Your task to perform on an android device: turn smart compose on in the gmail app Image 0: 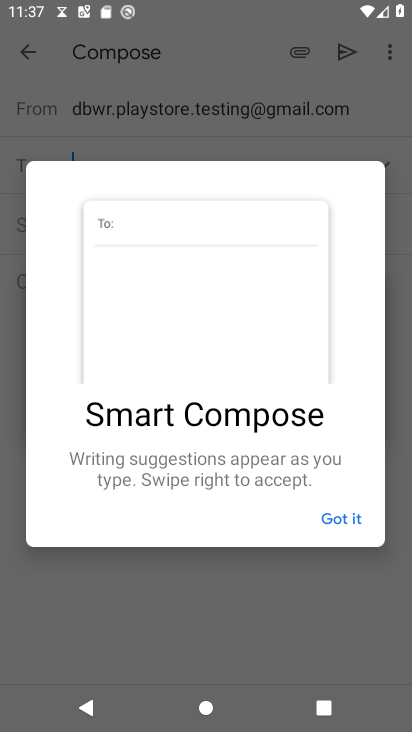
Step 0: press home button
Your task to perform on an android device: turn smart compose on in the gmail app Image 1: 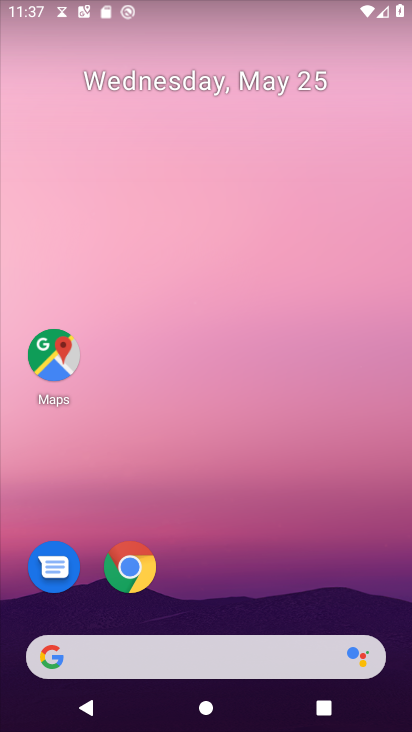
Step 1: drag from (259, 563) to (253, 61)
Your task to perform on an android device: turn smart compose on in the gmail app Image 2: 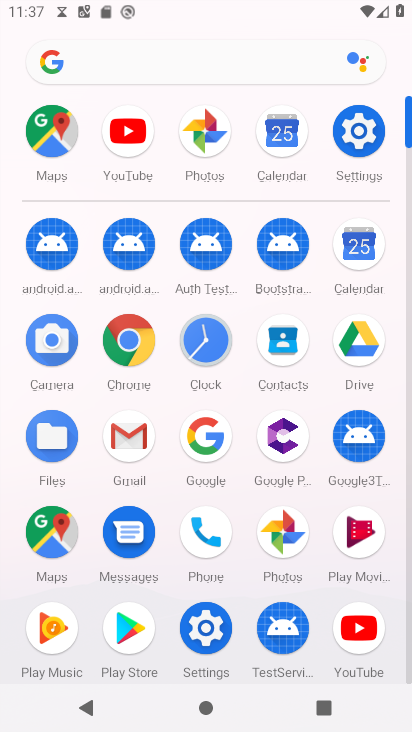
Step 2: click (128, 451)
Your task to perform on an android device: turn smart compose on in the gmail app Image 3: 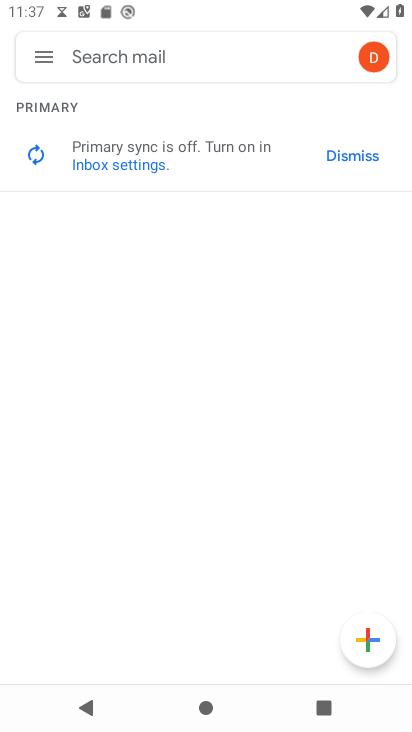
Step 3: click (40, 53)
Your task to perform on an android device: turn smart compose on in the gmail app Image 4: 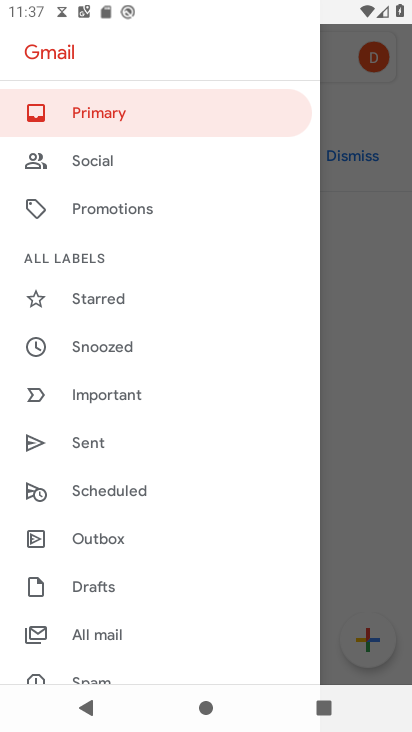
Step 4: drag from (141, 581) to (202, 111)
Your task to perform on an android device: turn smart compose on in the gmail app Image 5: 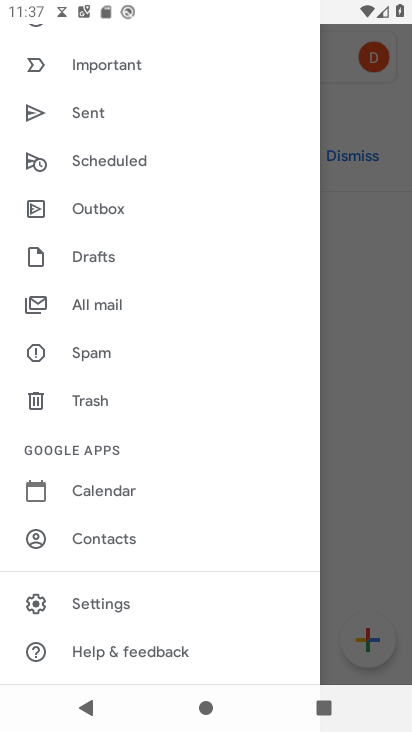
Step 5: drag from (161, 372) to (205, 146)
Your task to perform on an android device: turn smart compose on in the gmail app Image 6: 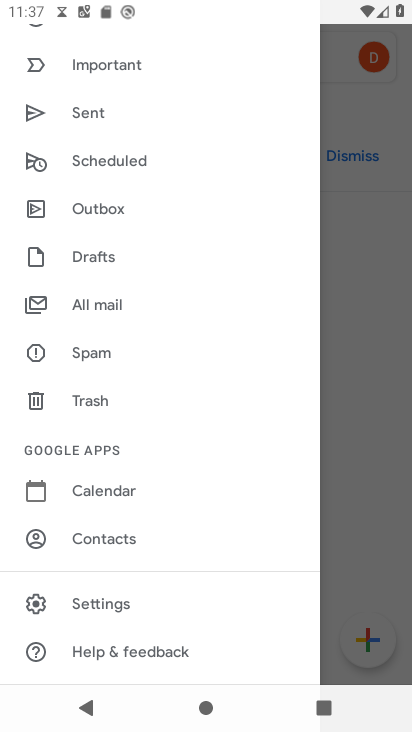
Step 6: drag from (216, 202) to (231, 567)
Your task to perform on an android device: turn smart compose on in the gmail app Image 7: 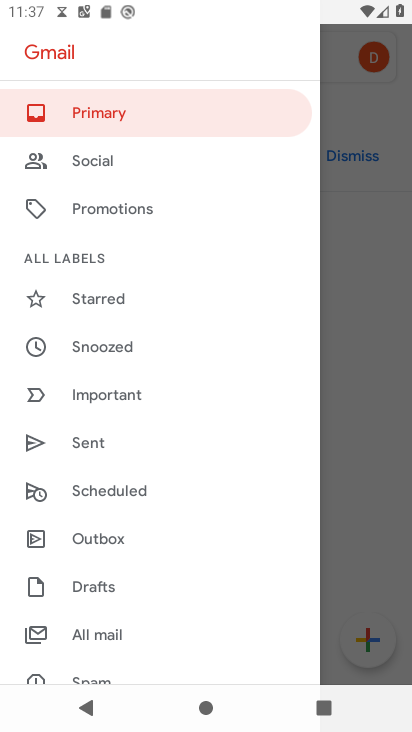
Step 7: drag from (142, 295) to (143, 407)
Your task to perform on an android device: turn smart compose on in the gmail app Image 8: 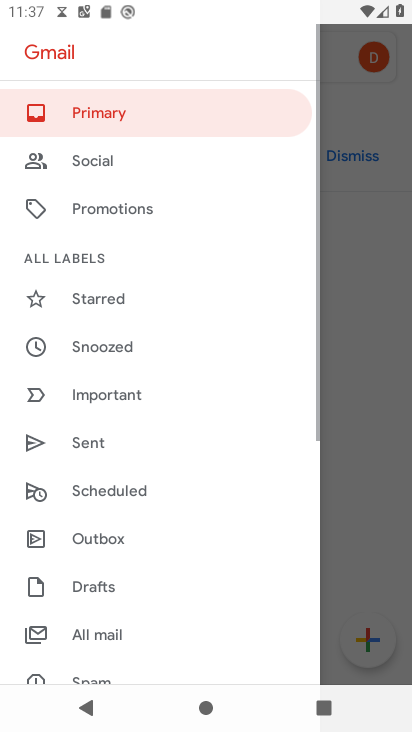
Step 8: drag from (132, 512) to (121, 164)
Your task to perform on an android device: turn smart compose on in the gmail app Image 9: 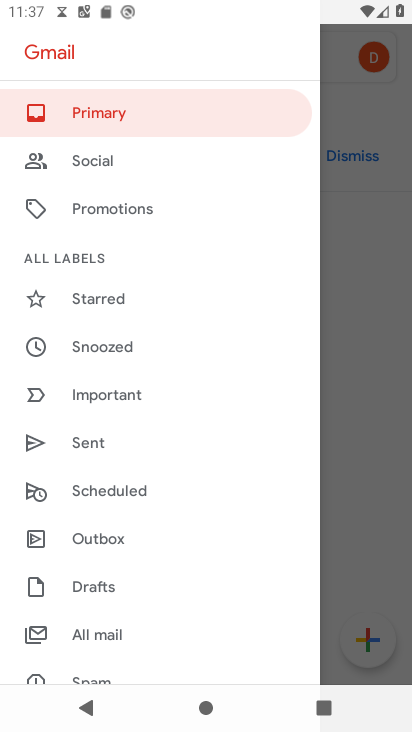
Step 9: drag from (199, 530) to (216, 69)
Your task to perform on an android device: turn smart compose on in the gmail app Image 10: 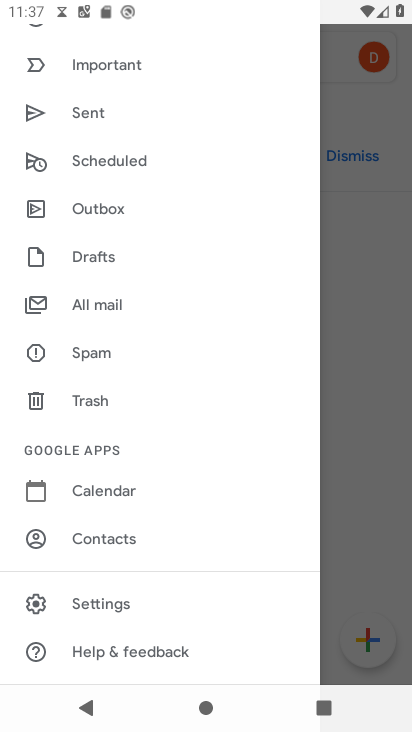
Step 10: click (59, 595)
Your task to perform on an android device: turn smart compose on in the gmail app Image 11: 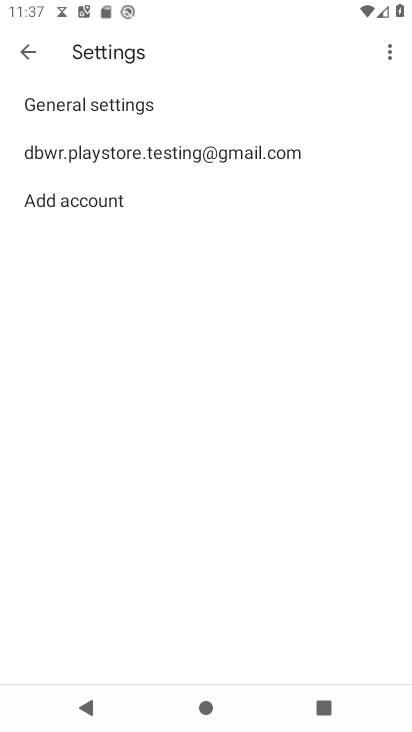
Step 11: click (382, 45)
Your task to perform on an android device: turn smart compose on in the gmail app Image 12: 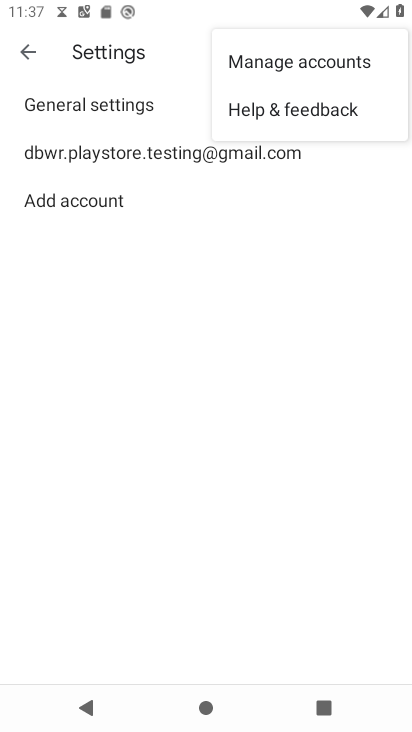
Step 12: click (25, 294)
Your task to perform on an android device: turn smart compose on in the gmail app Image 13: 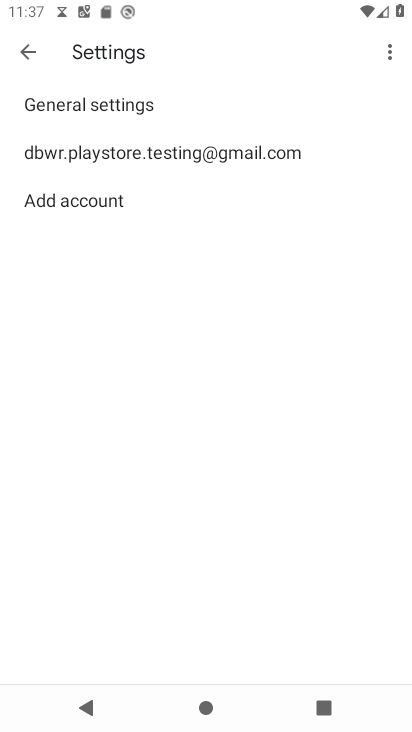
Step 13: click (98, 88)
Your task to perform on an android device: turn smart compose on in the gmail app Image 14: 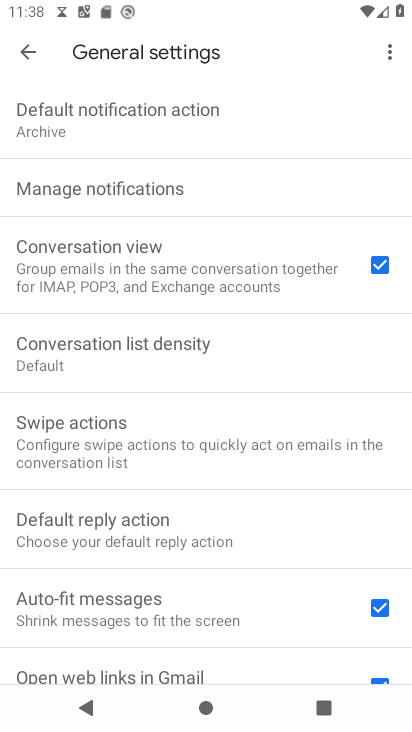
Step 14: task complete